Your task to perform on an android device: Empty the shopping cart on ebay.com. Search for lg ultragear on ebay.com, select the first entry, add it to the cart, then select checkout. Image 0: 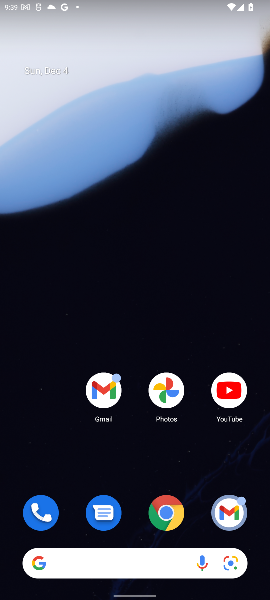
Step 0: click (165, 514)
Your task to perform on an android device: Empty the shopping cart on ebay.com. Search for lg ultragear on ebay.com, select the first entry, add it to the cart, then select checkout. Image 1: 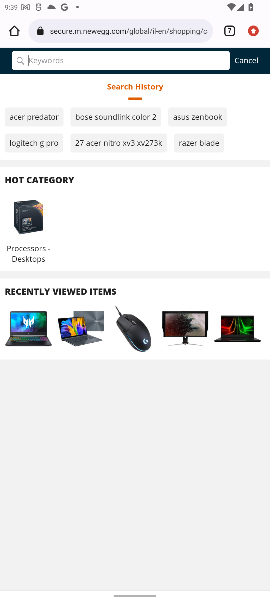
Step 1: click (225, 28)
Your task to perform on an android device: Empty the shopping cart on ebay.com. Search for lg ultragear on ebay.com, select the first entry, add it to the cart, then select checkout. Image 2: 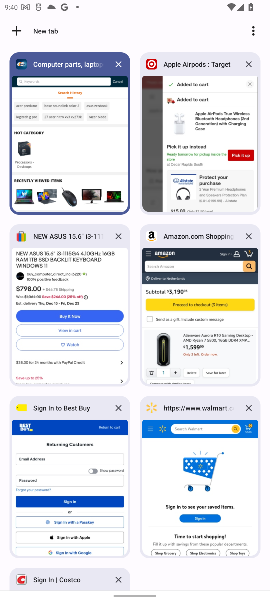
Step 2: click (86, 297)
Your task to perform on an android device: Empty the shopping cart on ebay.com. Search for lg ultragear on ebay.com, select the first entry, add it to the cart, then select checkout. Image 3: 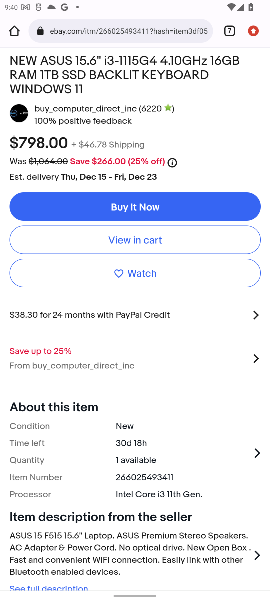
Step 3: click (158, 235)
Your task to perform on an android device: Empty the shopping cart on ebay.com. Search for lg ultragear on ebay.com, select the first entry, add it to the cart, then select checkout. Image 4: 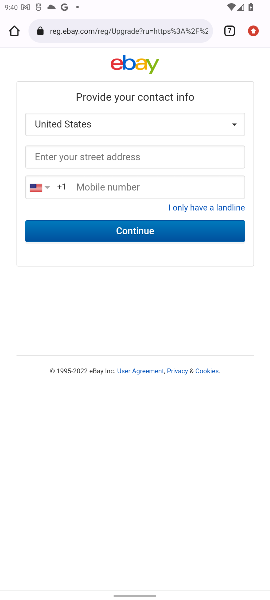
Step 4: press back button
Your task to perform on an android device: Empty the shopping cart on ebay.com. Search for lg ultragear on ebay.com, select the first entry, add it to the cart, then select checkout. Image 5: 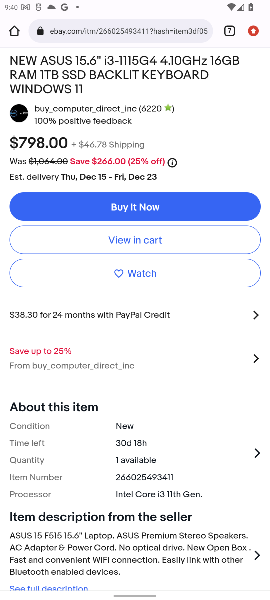
Step 5: drag from (80, 101) to (77, 578)
Your task to perform on an android device: Empty the shopping cart on ebay.com. Search for lg ultragear on ebay.com, select the first entry, add it to the cart, then select checkout. Image 6: 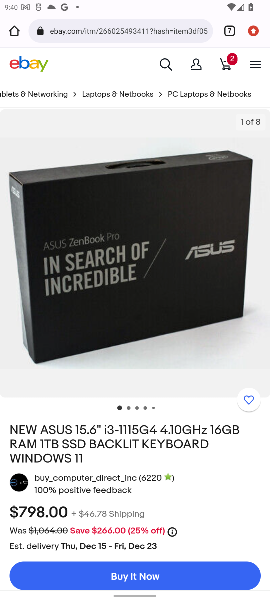
Step 6: click (166, 58)
Your task to perform on an android device: Empty the shopping cart on ebay.com. Search for lg ultragear on ebay.com, select the first entry, add it to the cart, then select checkout. Image 7: 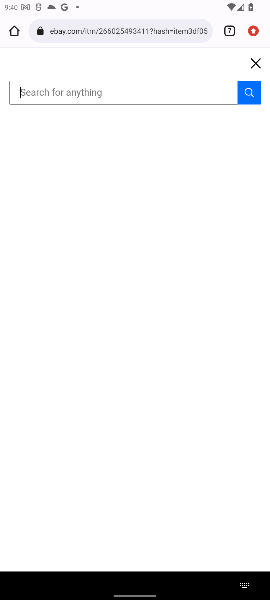
Step 7: type "lg ultragear"
Your task to perform on an android device: Empty the shopping cart on ebay.com. Search for lg ultragear on ebay.com, select the first entry, add it to the cart, then select checkout. Image 8: 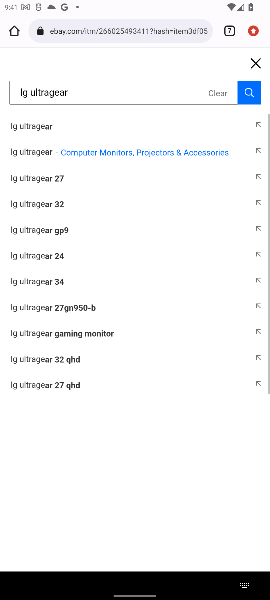
Step 8: click (25, 150)
Your task to perform on an android device: Empty the shopping cart on ebay.com. Search for lg ultragear on ebay.com, select the first entry, add it to the cart, then select checkout. Image 9: 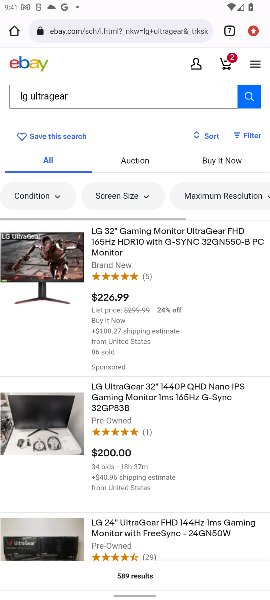
Step 9: click (102, 394)
Your task to perform on an android device: Empty the shopping cart on ebay.com. Search for lg ultragear on ebay.com, select the first entry, add it to the cart, then select checkout. Image 10: 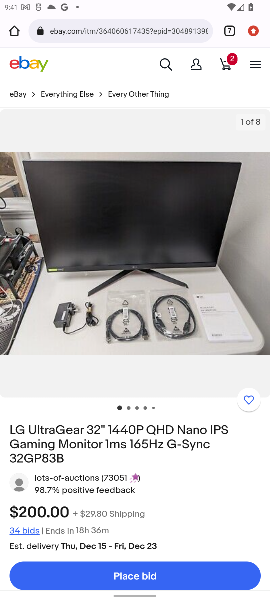
Step 10: task complete